Your task to perform on an android device: toggle show notifications on the lock screen Image 0: 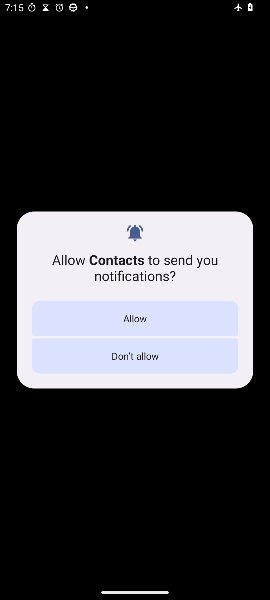
Step 0: press home button
Your task to perform on an android device: toggle show notifications on the lock screen Image 1: 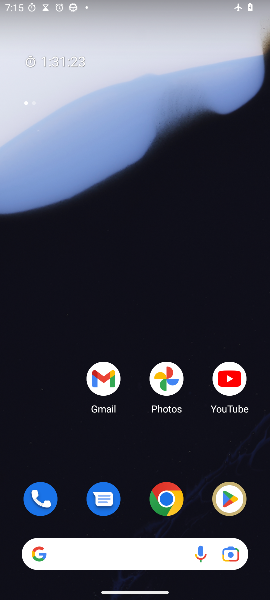
Step 1: drag from (117, 454) to (153, 109)
Your task to perform on an android device: toggle show notifications on the lock screen Image 2: 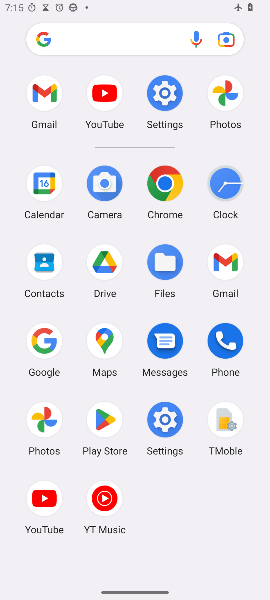
Step 2: click (168, 96)
Your task to perform on an android device: toggle show notifications on the lock screen Image 3: 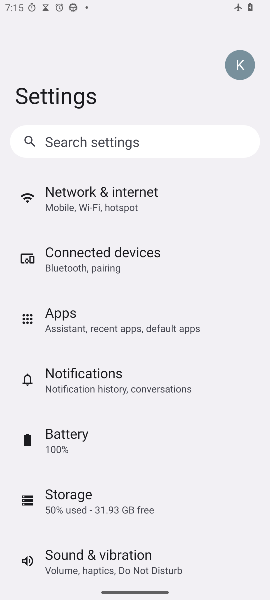
Step 3: click (78, 375)
Your task to perform on an android device: toggle show notifications on the lock screen Image 4: 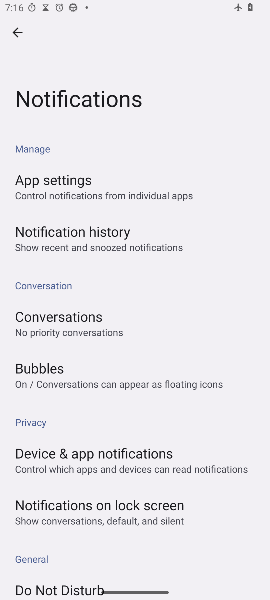
Step 4: drag from (74, 484) to (118, 254)
Your task to perform on an android device: toggle show notifications on the lock screen Image 5: 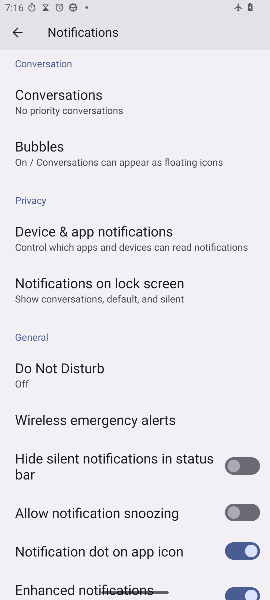
Step 5: click (134, 287)
Your task to perform on an android device: toggle show notifications on the lock screen Image 6: 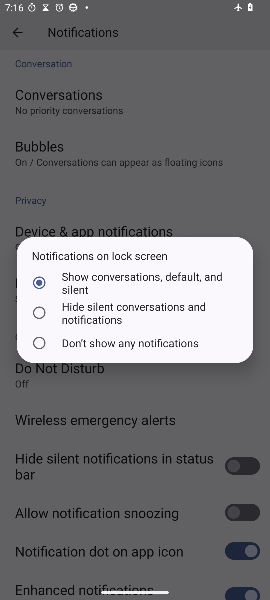
Step 6: click (76, 307)
Your task to perform on an android device: toggle show notifications on the lock screen Image 7: 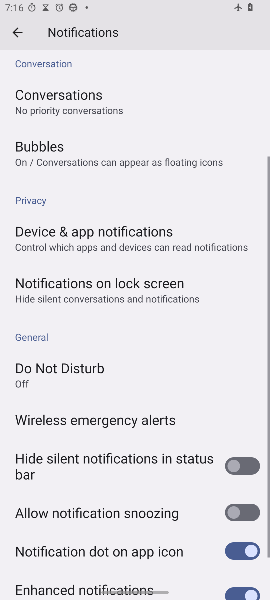
Step 7: task complete